Your task to perform on an android device: read, delete, or share a saved page in the chrome app Image 0: 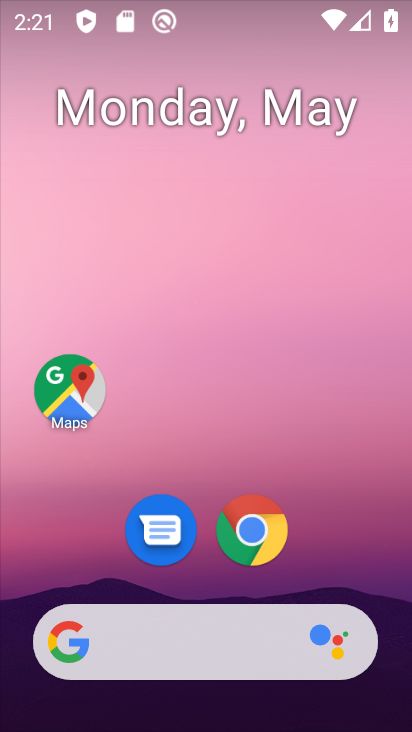
Step 0: click (266, 533)
Your task to perform on an android device: read, delete, or share a saved page in the chrome app Image 1: 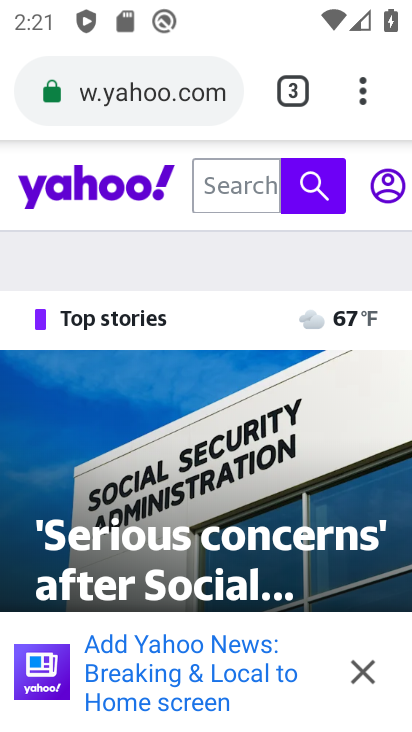
Step 1: drag from (363, 95) to (144, 393)
Your task to perform on an android device: read, delete, or share a saved page in the chrome app Image 2: 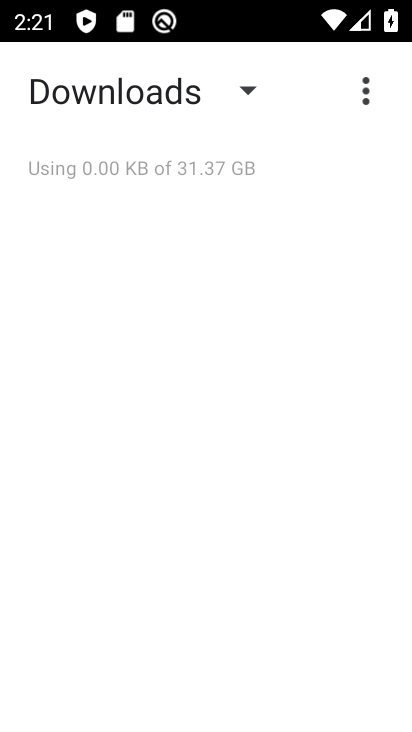
Step 2: click (229, 86)
Your task to perform on an android device: read, delete, or share a saved page in the chrome app Image 3: 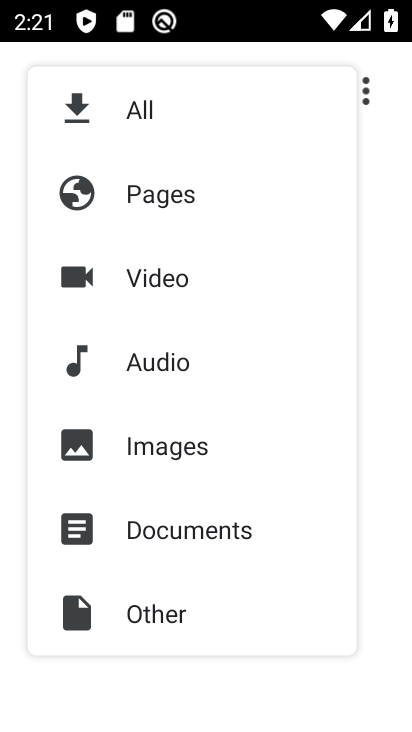
Step 3: click (154, 205)
Your task to perform on an android device: read, delete, or share a saved page in the chrome app Image 4: 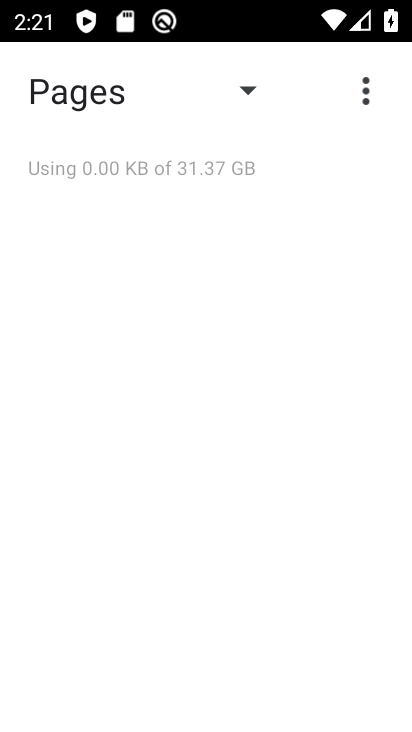
Step 4: task complete